Your task to perform on an android device: snooze an email in the gmail app Image 0: 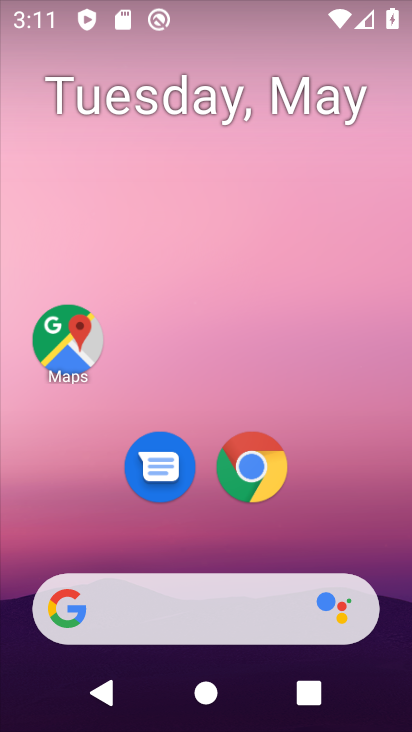
Step 0: drag from (348, 478) to (315, 90)
Your task to perform on an android device: snooze an email in the gmail app Image 1: 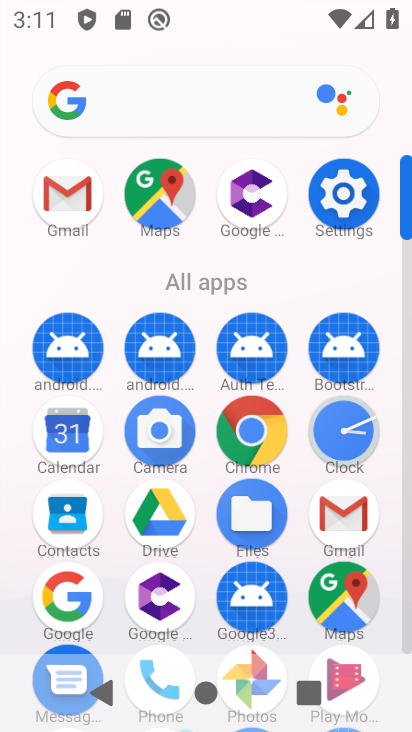
Step 1: click (70, 192)
Your task to perform on an android device: snooze an email in the gmail app Image 2: 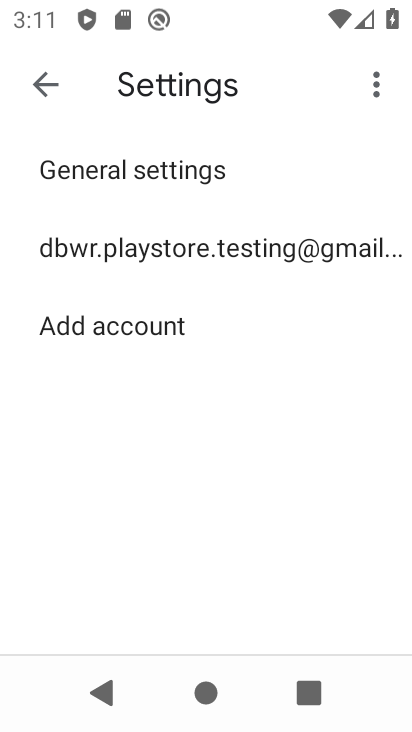
Step 2: click (120, 248)
Your task to perform on an android device: snooze an email in the gmail app Image 3: 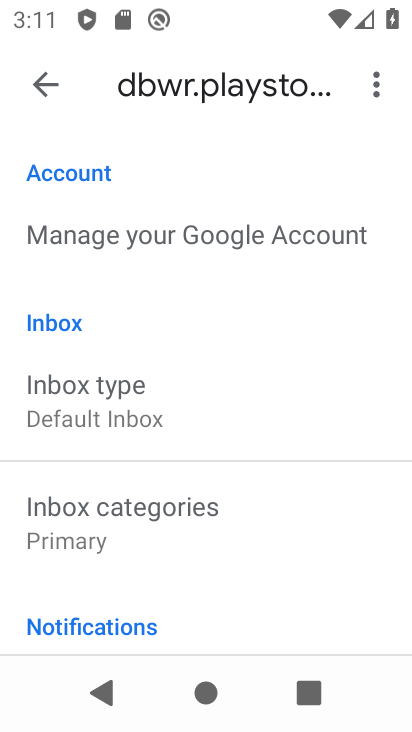
Step 3: click (35, 81)
Your task to perform on an android device: snooze an email in the gmail app Image 4: 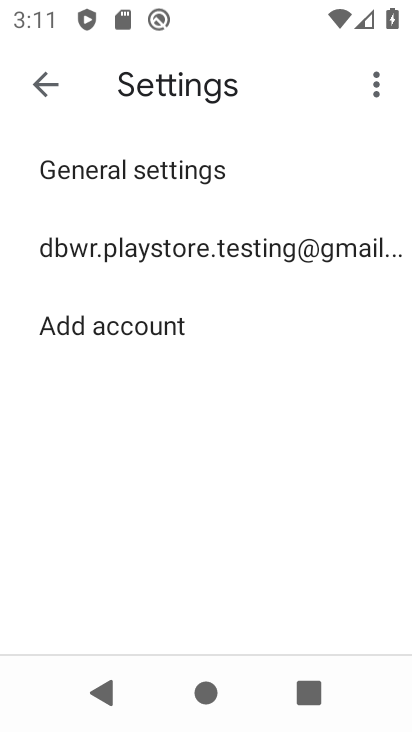
Step 4: click (104, 247)
Your task to perform on an android device: snooze an email in the gmail app Image 5: 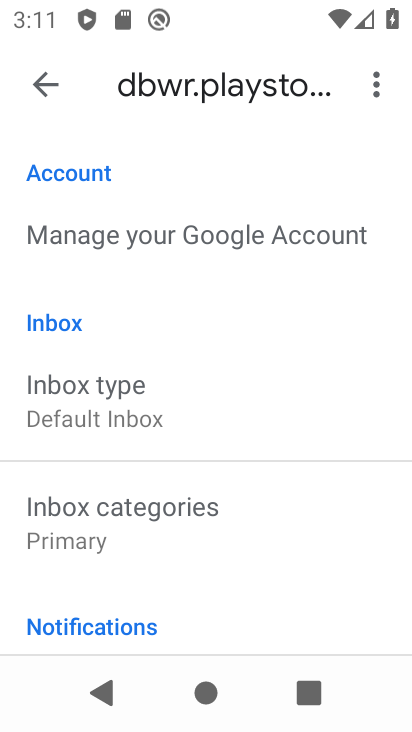
Step 5: click (38, 87)
Your task to perform on an android device: snooze an email in the gmail app Image 6: 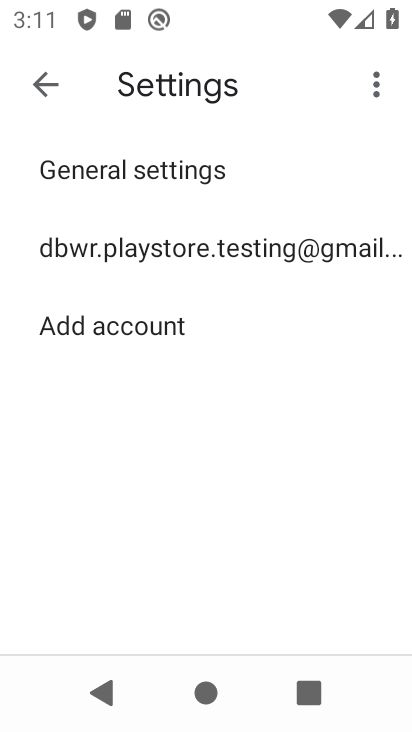
Step 6: click (45, 81)
Your task to perform on an android device: snooze an email in the gmail app Image 7: 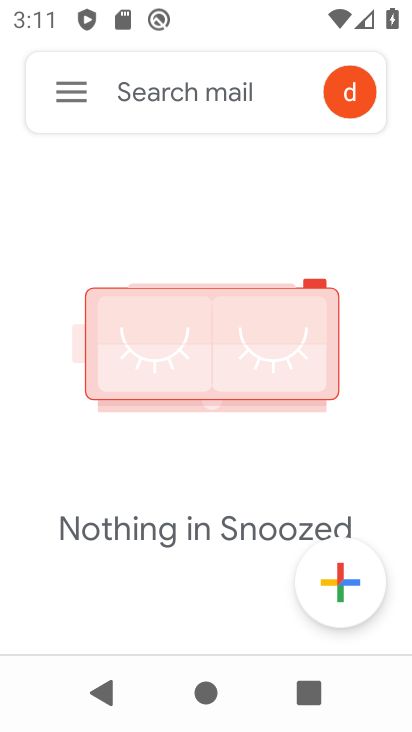
Step 7: click (70, 94)
Your task to perform on an android device: snooze an email in the gmail app Image 8: 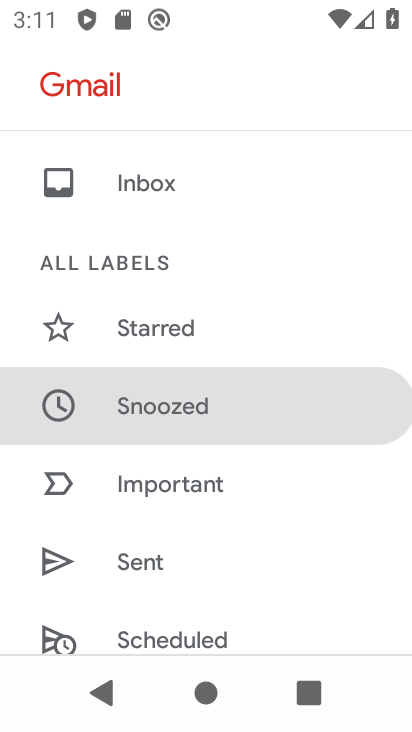
Step 8: click (171, 405)
Your task to perform on an android device: snooze an email in the gmail app Image 9: 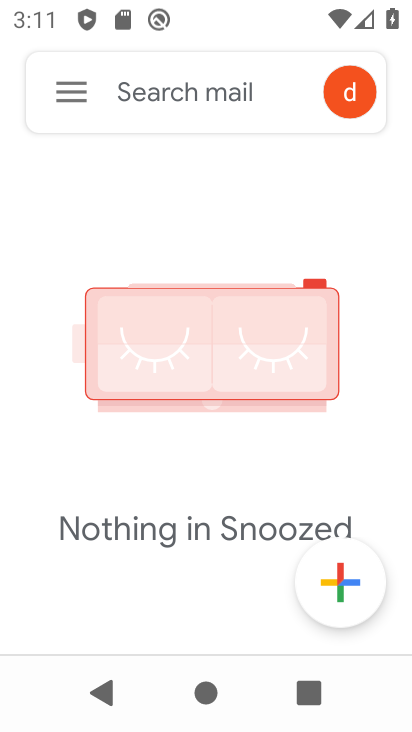
Step 9: task complete